Your task to perform on an android device: Add usb-c to usb-b to the cart on newegg Image 0: 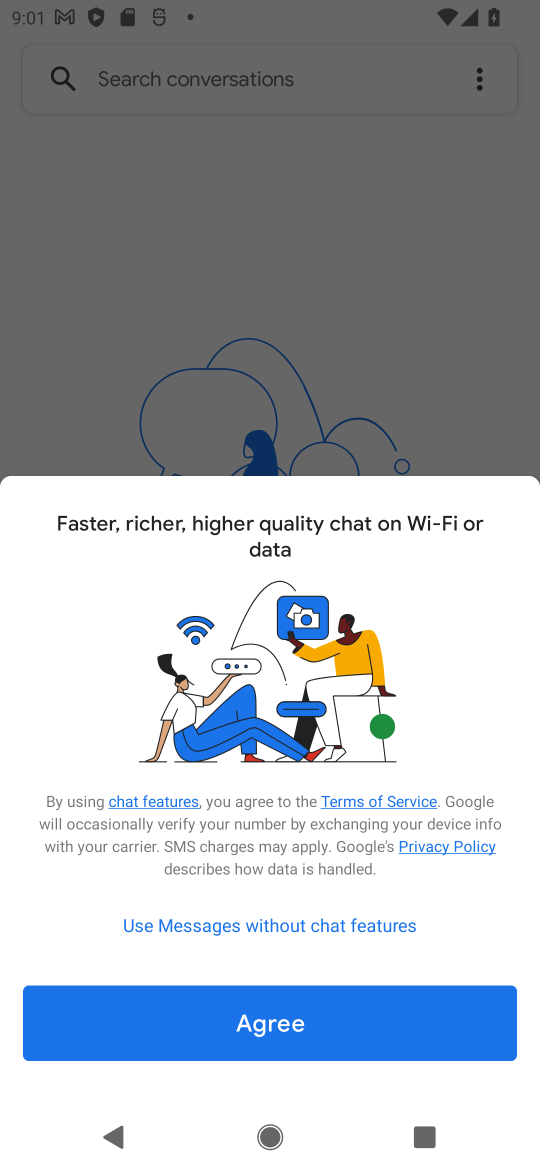
Step 0: press home button
Your task to perform on an android device: Add usb-c to usb-b to the cart on newegg Image 1: 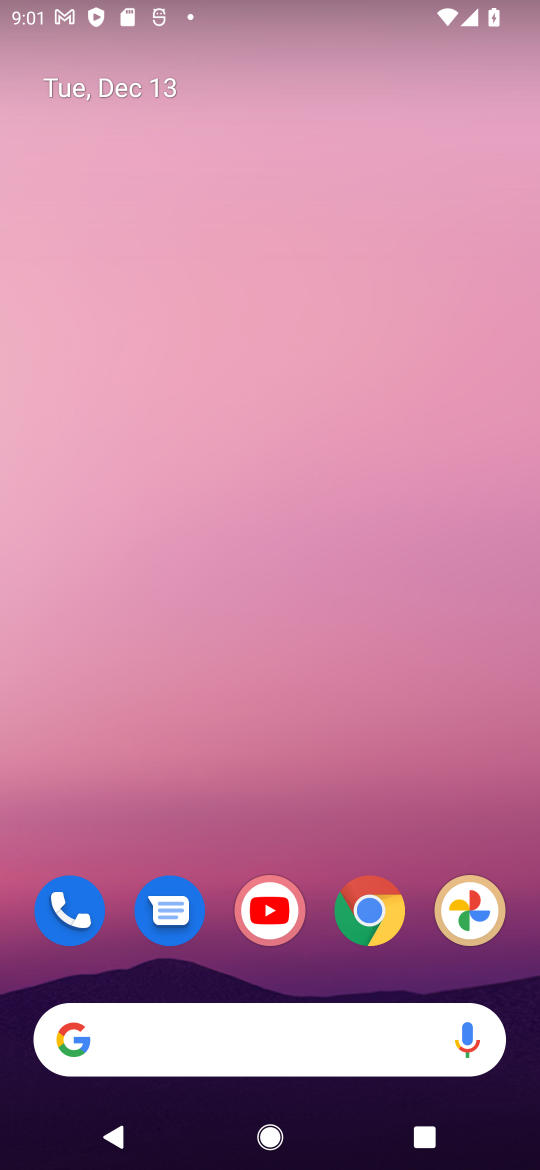
Step 1: drag from (285, 1002) to (254, 224)
Your task to perform on an android device: Add usb-c to usb-b to the cart on newegg Image 2: 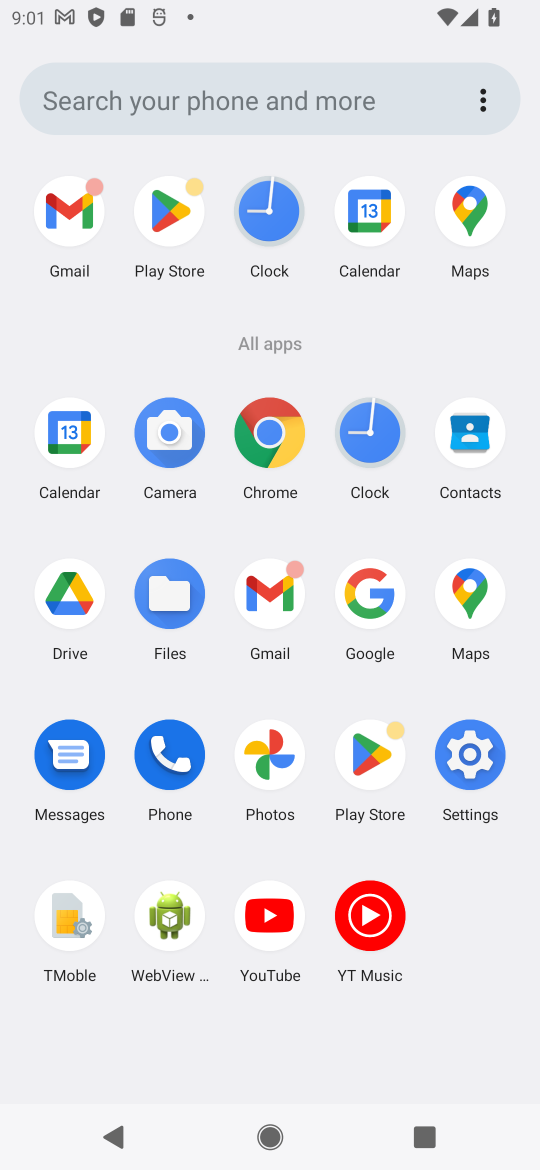
Step 2: click (348, 593)
Your task to perform on an android device: Add usb-c to usb-b to the cart on newegg Image 3: 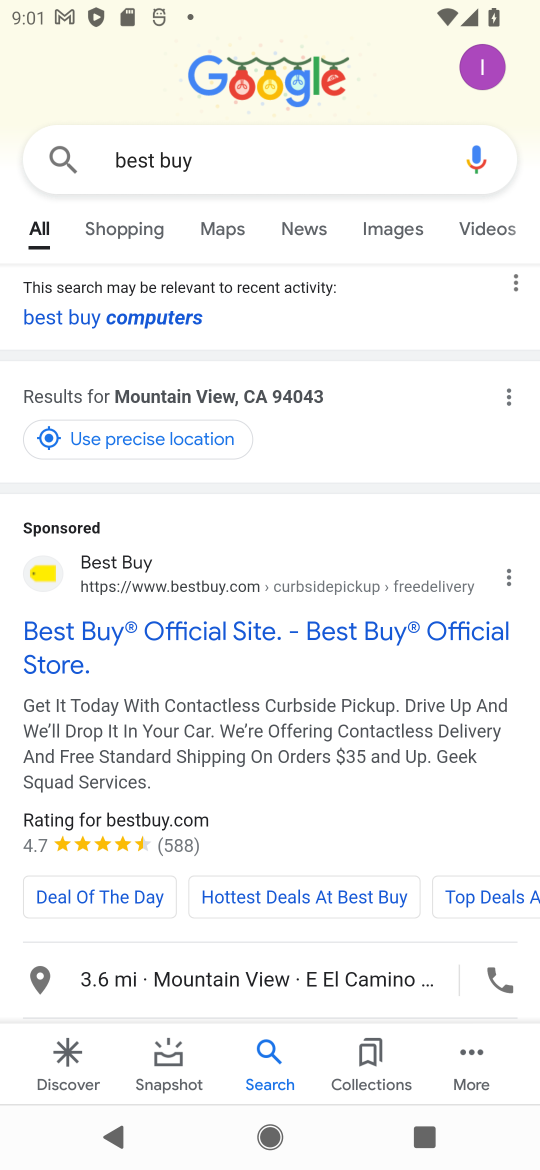
Step 3: click (160, 163)
Your task to perform on an android device: Add usb-c to usb-b to the cart on newegg Image 4: 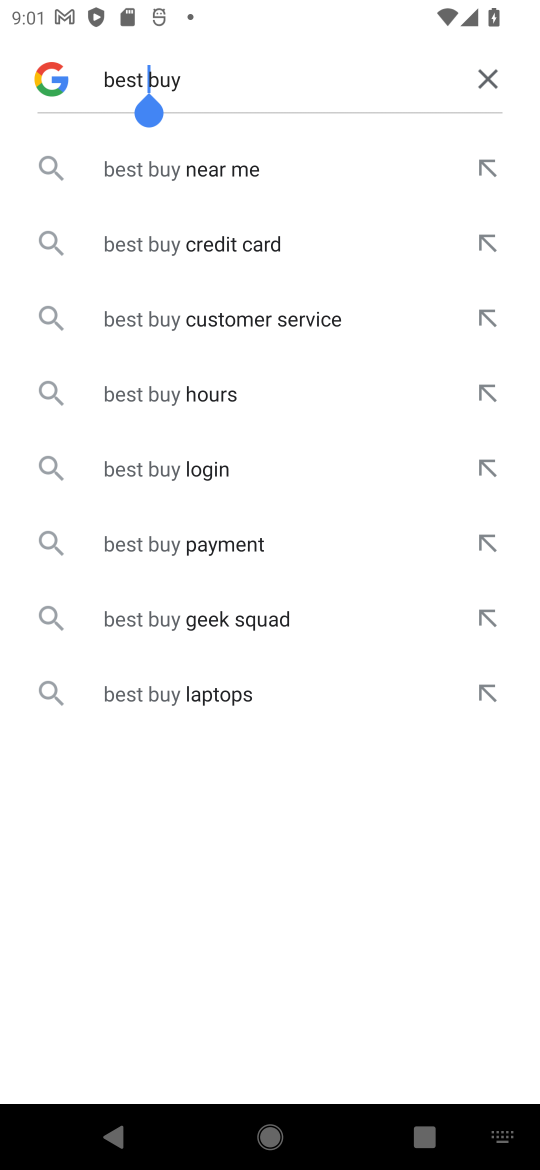
Step 4: click (482, 84)
Your task to perform on an android device: Add usb-c to usb-b to the cart on newegg Image 5: 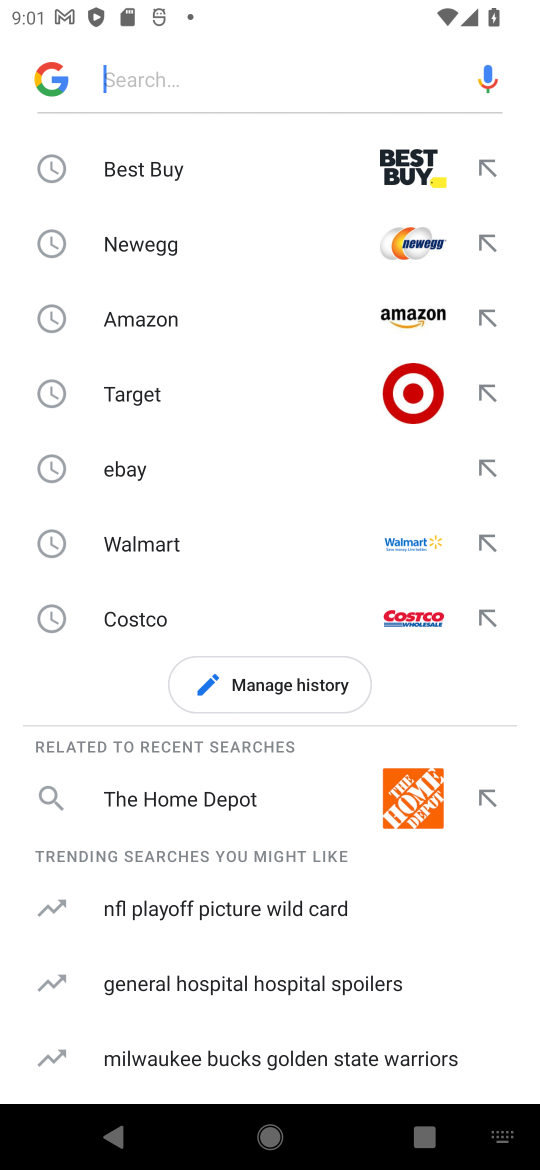
Step 5: click (142, 252)
Your task to perform on an android device: Add usb-c to usb-b to the cart on newegg Image 6: 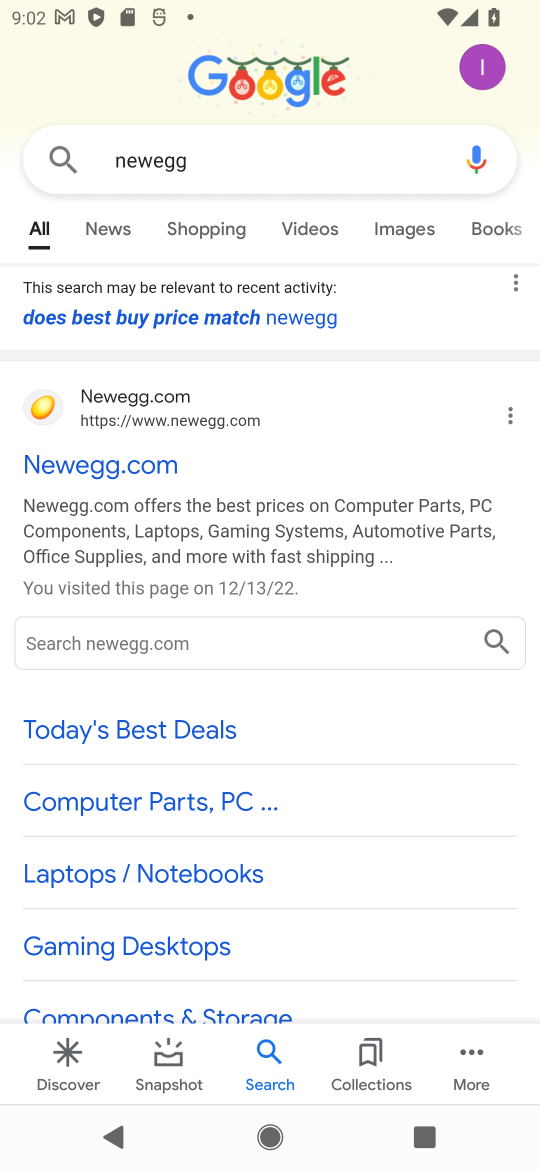
Step 6: click (126, 467)
Your task to perform on an android device: Add usb-c to usb-b to the cart on newegg Image 7: 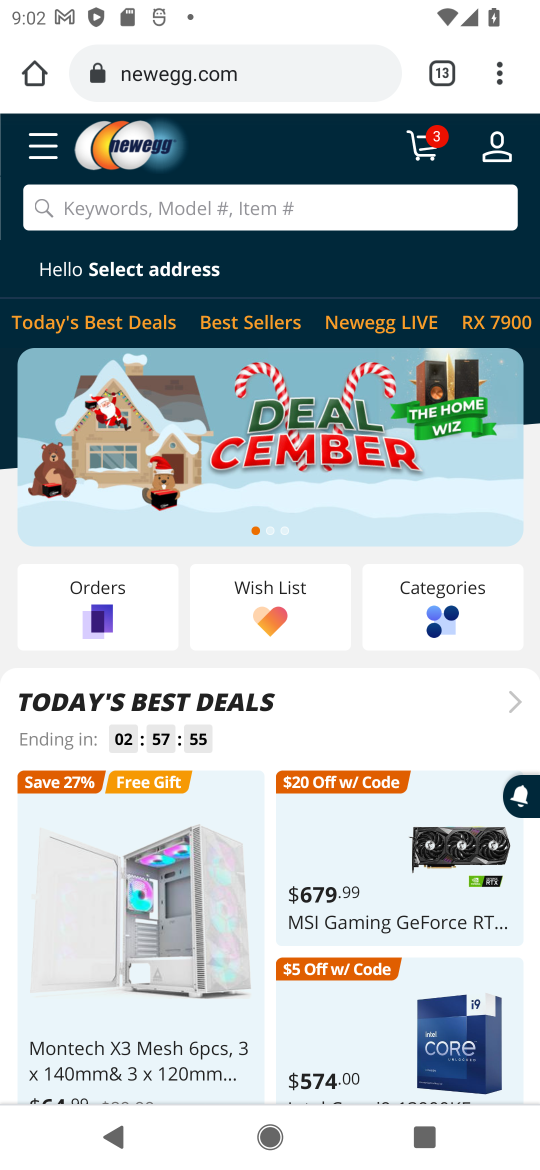
Step 7: click (81, 195)
Your task to perform on an android device: Add usb-c to usb-b to the cart on newegg Image 8: 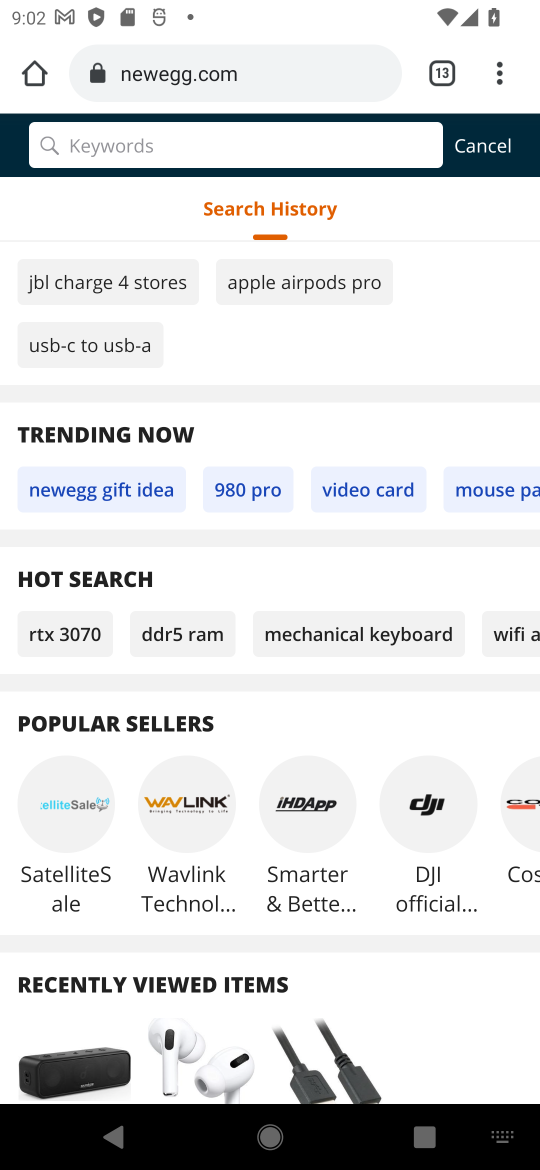
Step 8: type "usb-c to usb-b"
Your task to perform on an android device: Add usb-c to usb-b to the cart on newegg Image 9: 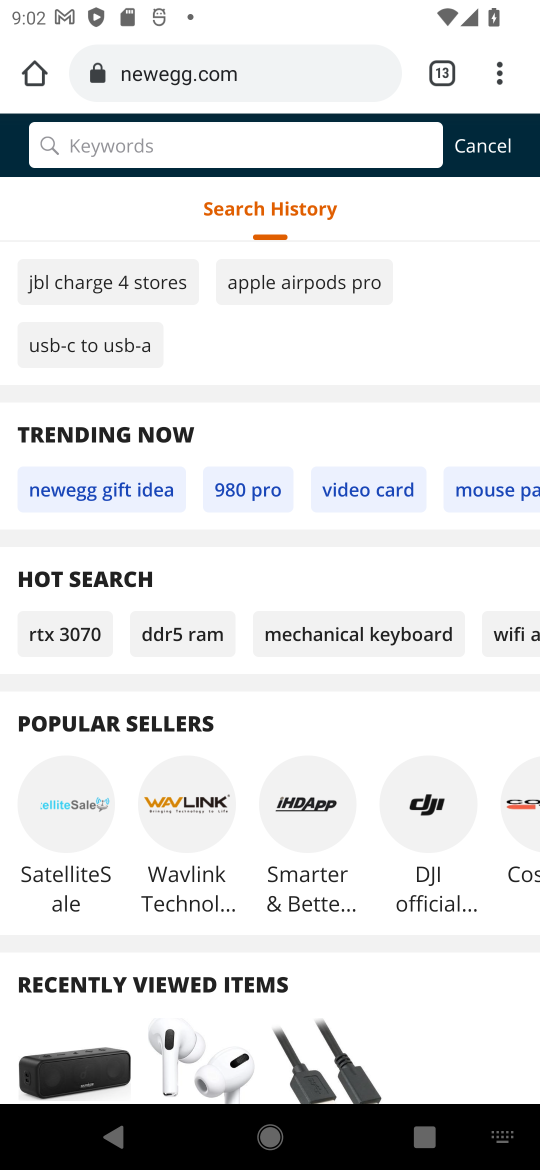
Step 9: click (38, 143)
Your task to perform on an android device: Add usb-c to usb-b to the cart on newegg Image 10: 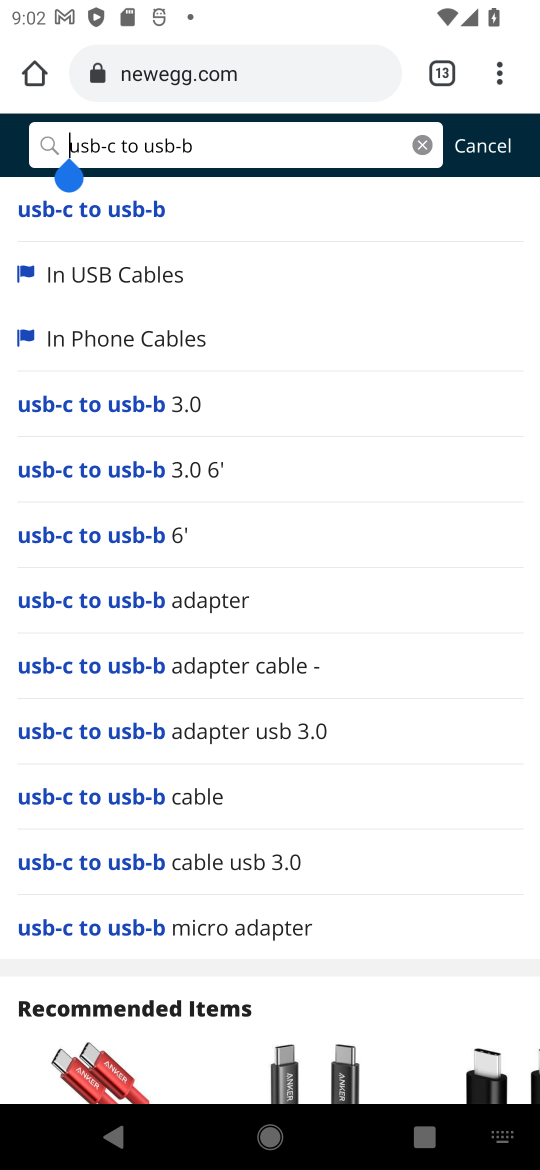
Step 10: click (116, 207)
Your task to perform on an android device: Add usb-c to usb-b to the cart on newegg Image 11: 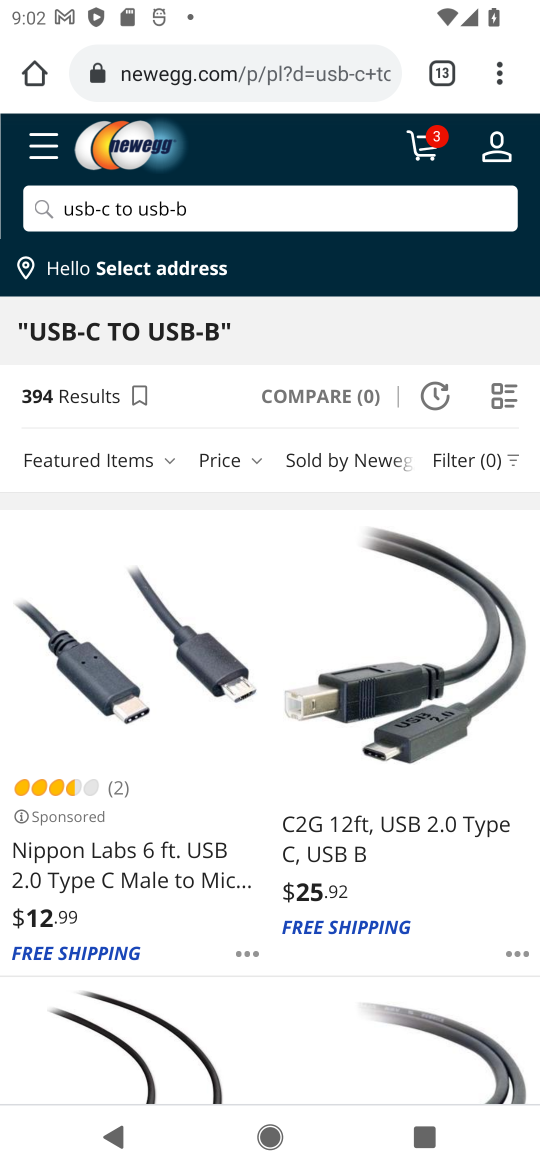
Step 11: click (122, 859)
Your task to perform on an android device: Add usb-c to usb-b to the cart on newegg Image 12: 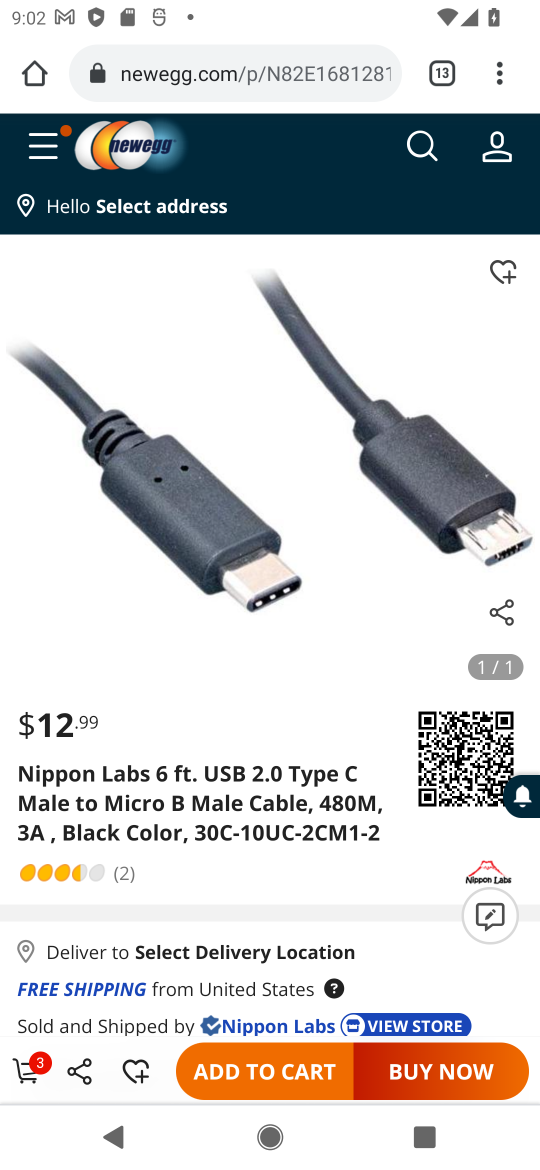
Step 12: click (241, 1064)
Your task to perform on an android device: Add usb-c to usb-b to the cart on newegg Image 13: 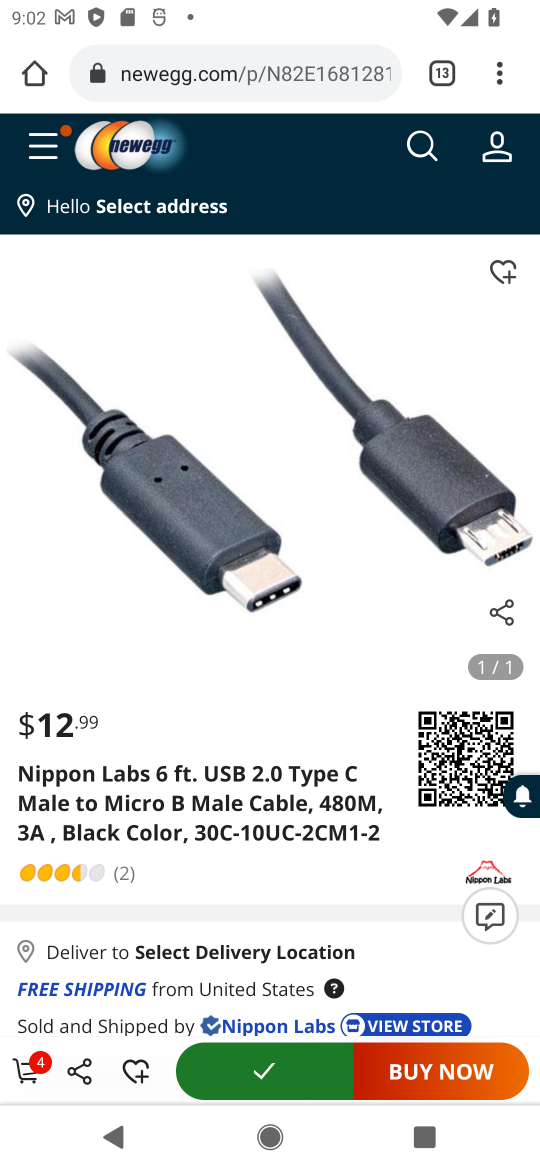
Step 13: task complete